Your task to perform on an android device: Go to Amazon Image 0: 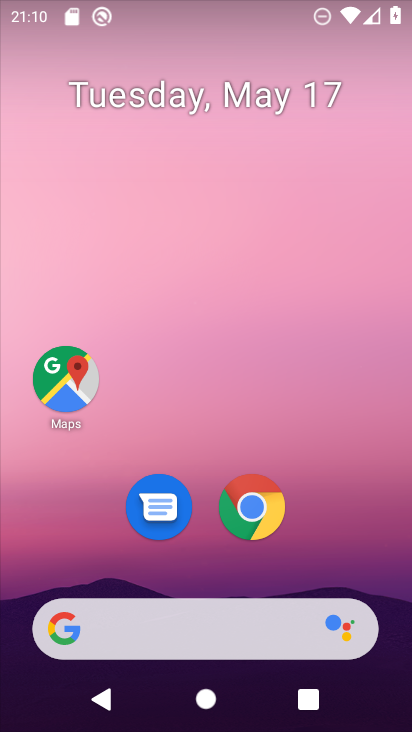
Step 0: click (258, 512)
Your task to perform on an android device: Go to Amazon Image 1: 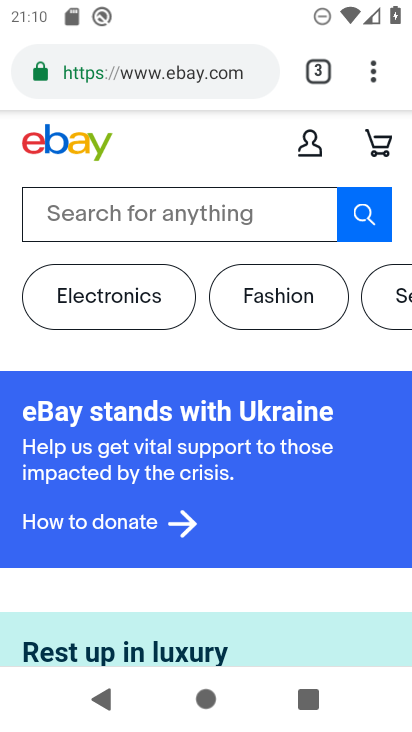
Step 1: click (114, 74)
Your task to perform on an android device: Go to Amazon Image 2: 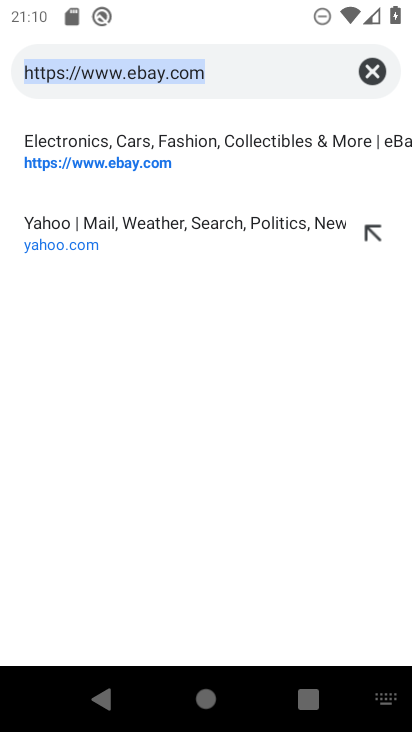
Step 2: click (365, 77)
Your task to perform on an android device: Go to Amazon Image 3: 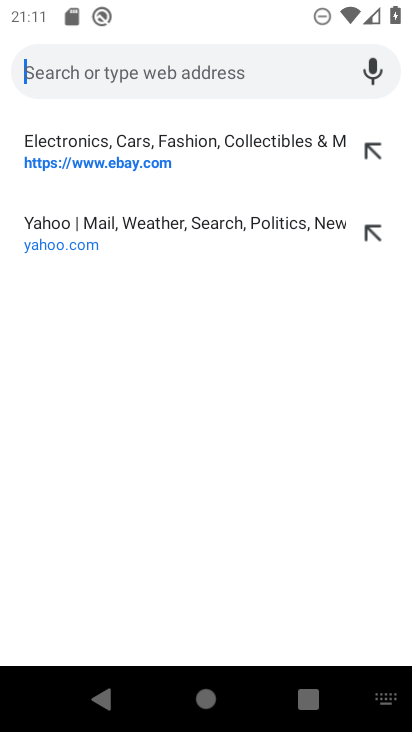
Step 3: type "amazon"
Your task to perform on an android device: Go to Amazon Image 4: 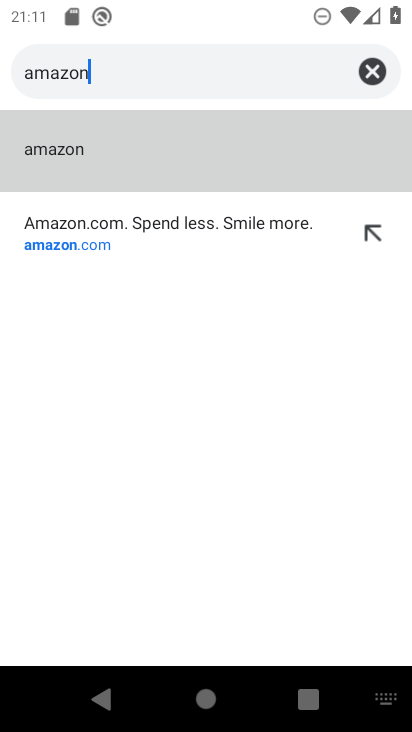
Step 4: click (40, 145)
Your task to perform on an android device: Go to Amazon Image 5: 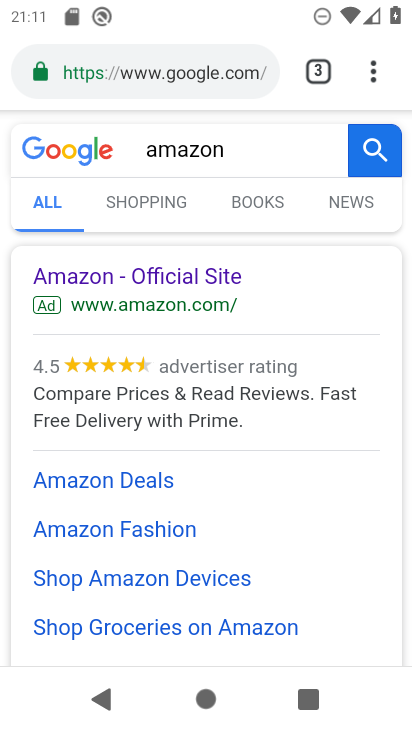
Step 5: click (65, 382)
Your task to perform on an android device: Go to Amazon Image 6: 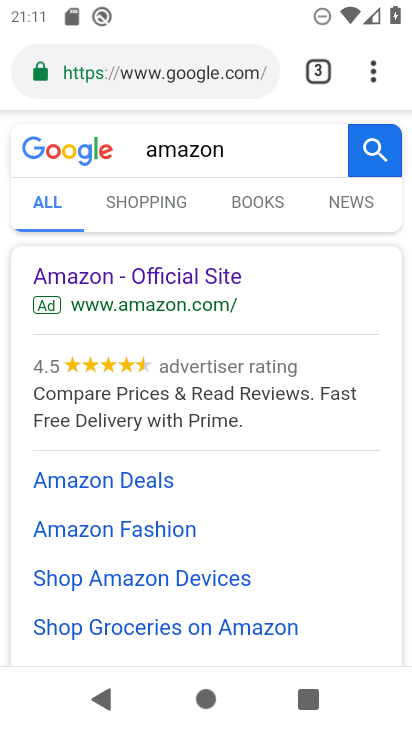
Step 6: click (92, 280)
Your task to perform on an android device: Go to Amazon Image 7: 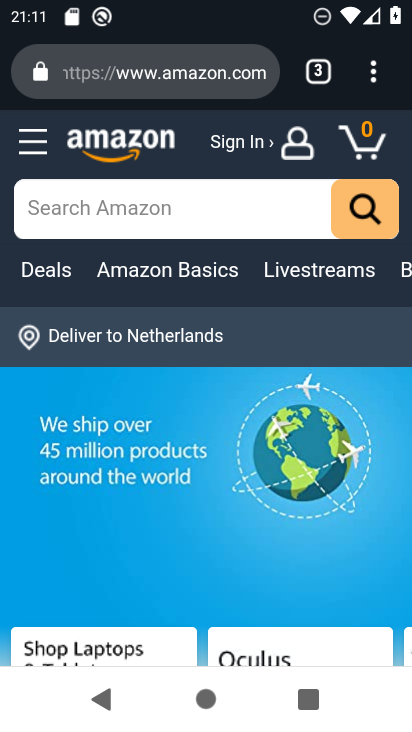
Step 7: task complete